Your task to perform on an android device: Open my contact list Image 0: 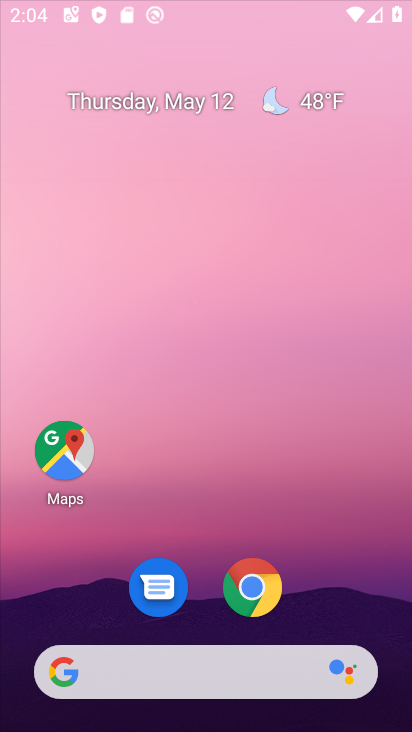
Step 0: drag from (242, 614) to (248, 245)
Your task to perform on an android device: Open my contact list Image 1: 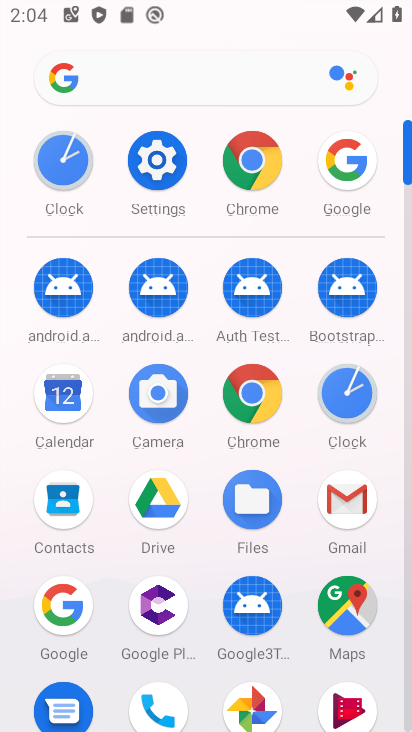
Step 1: click (64, 500)
Your task to perform on an android device: Open my contact list Image 2: 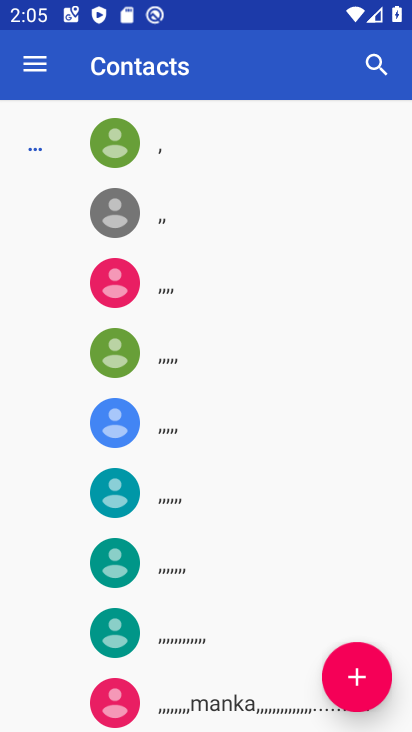
Step 2: task complete